Your task to perform on an android device: open app "AliExpress" (install if not already installed) and go to login screen Image 0: 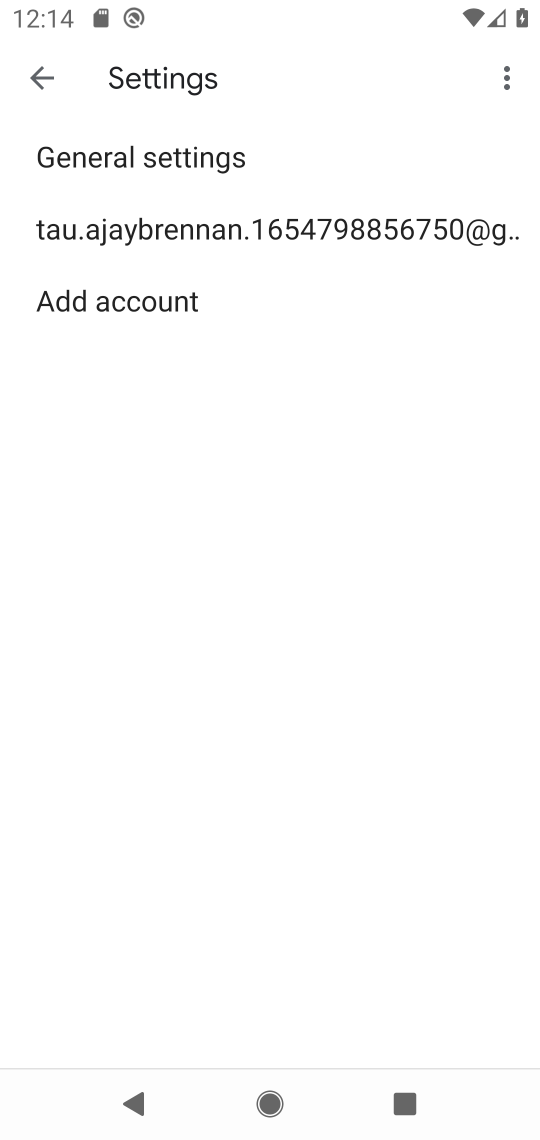
Step 0: press home button
Your task to perform on an android device: open app "AliExpress" (install if not already installed) and go to login screen Image 1: 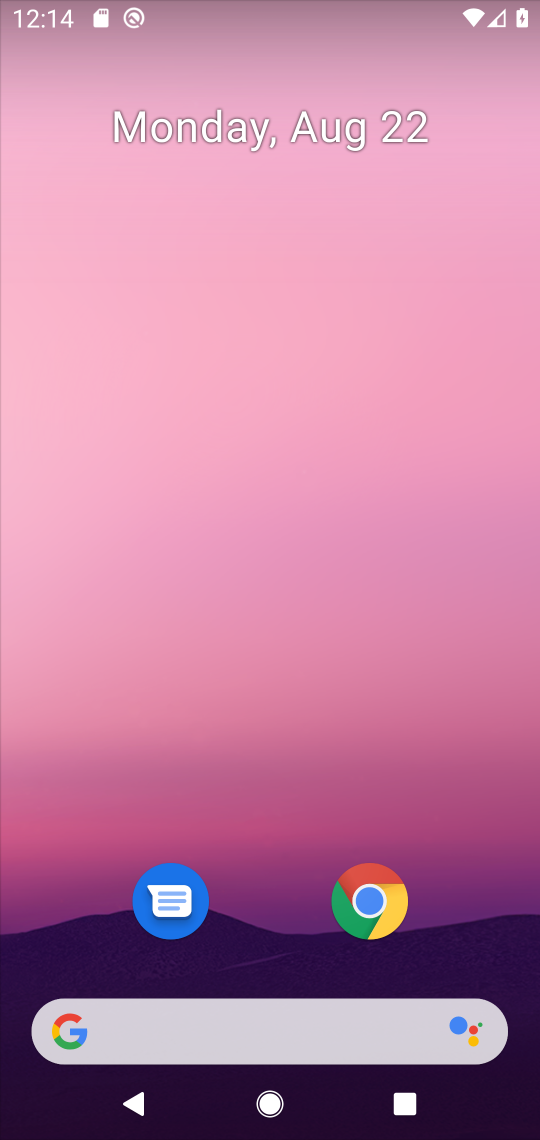
Step 1: drag from (266, 978) to (239, 137)
Your task to perform on an android device: open app "AliExpress" (install if not already installed) and go to login screen Image 2: 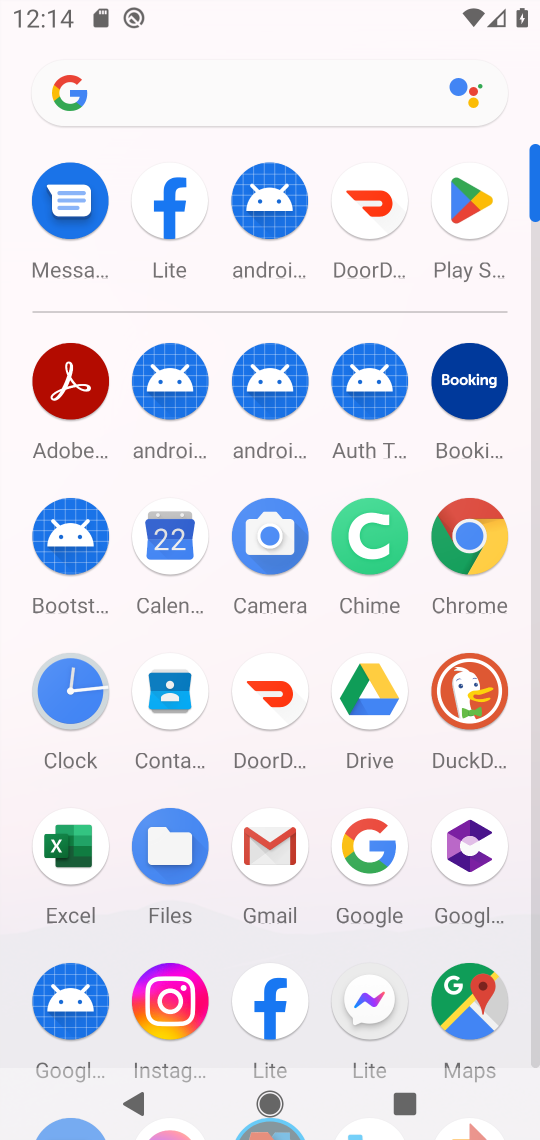
Step 2: click (451, 186)
Your task to perform on an android device: open app "AliExpress" (install if not already installed) and go to login screen Image 3: 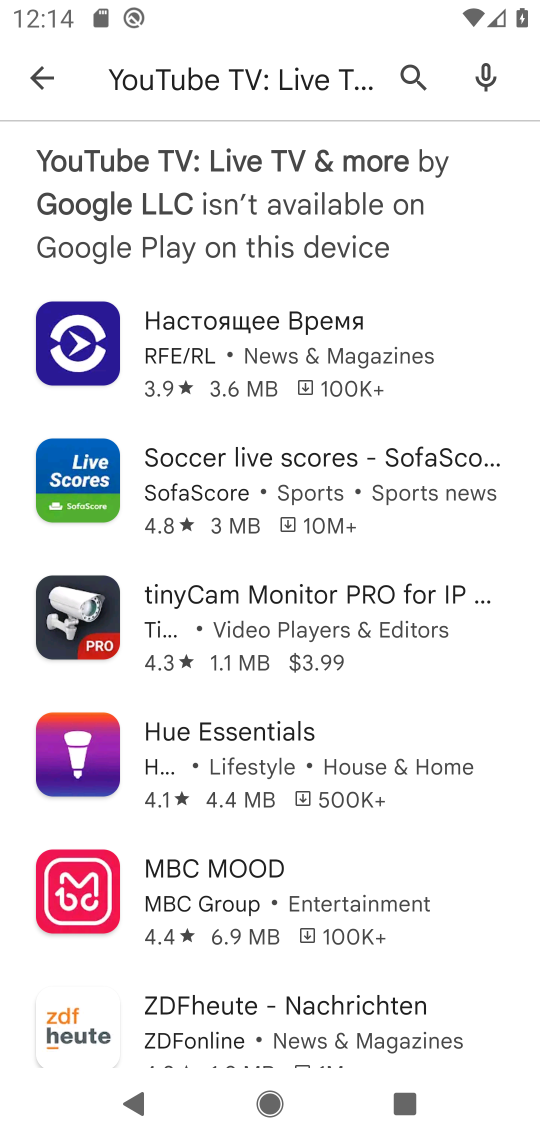
Step 3: click (400, 92)
Your task to perform on an android device: open app "AliExpress" (install if not already installed) and go to login screen Image 4: 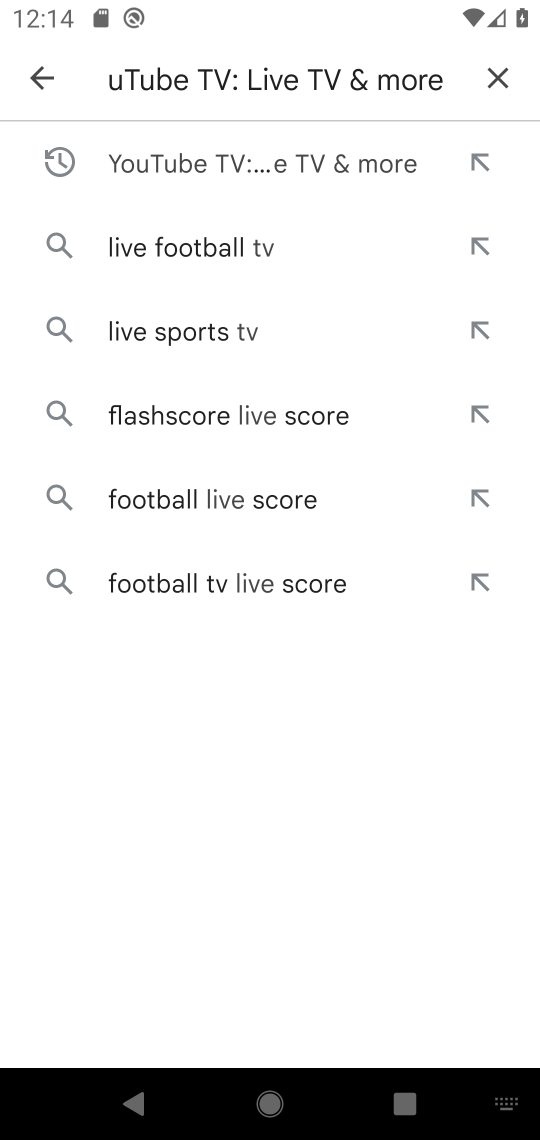
Step 4: click (491, 89)
Your task to perform on an android device: open app "AliExpress" (install if not already installed) and go to login screen Image 5: 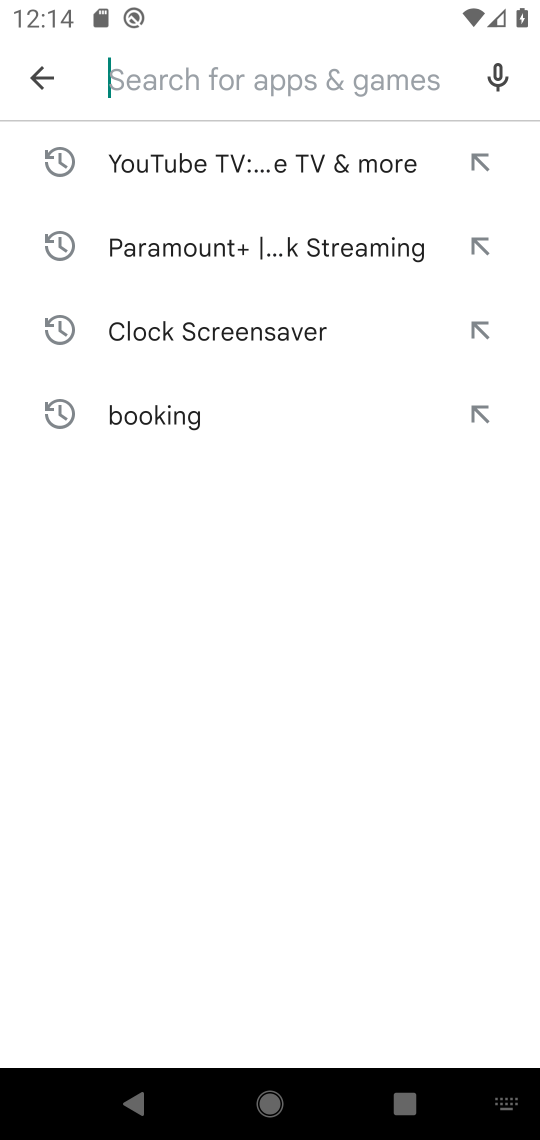
Step 5: type "aliexpress"
Your task to perform on an android device: open app "AliExpress" (install if not already installed) and go to login screen Image 6: 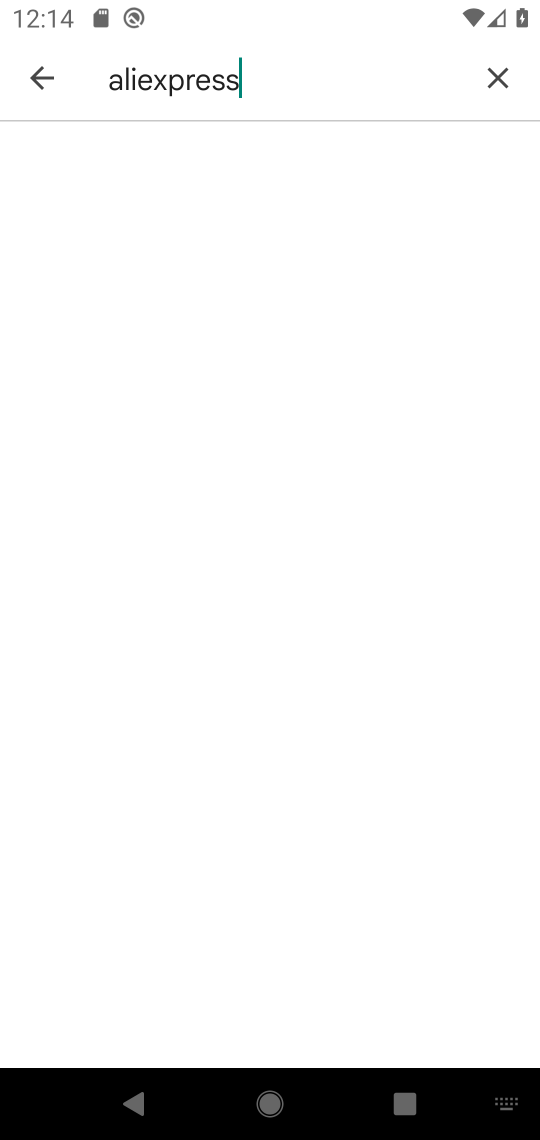
Step 6: task complete